Your task to perform on an android device: open app "Instagram" Image 0: 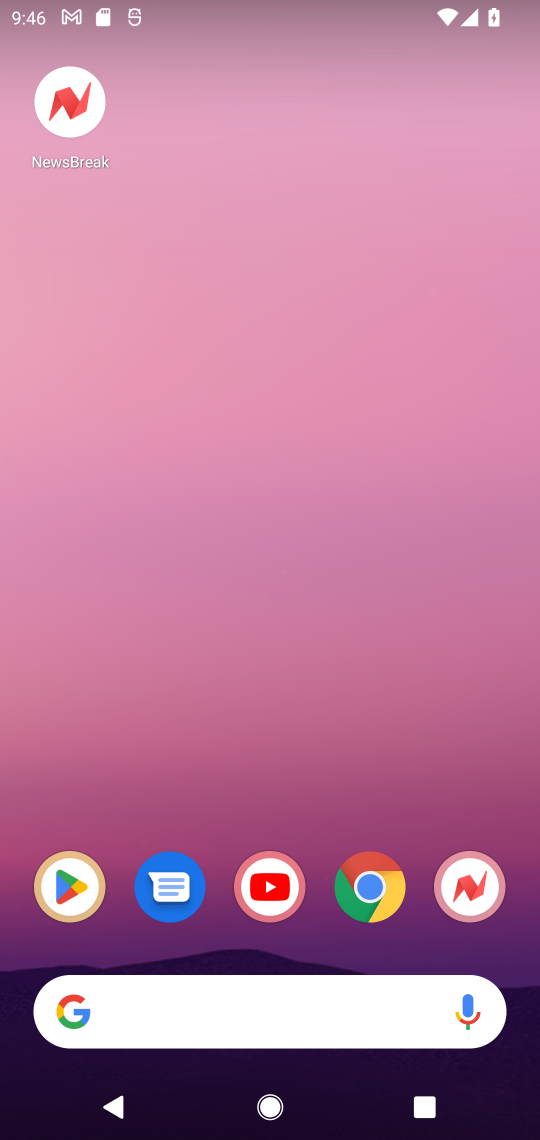
Step 0: click (58, 877)
Your task to perform on an android device: open app "Instagram" Image 1: 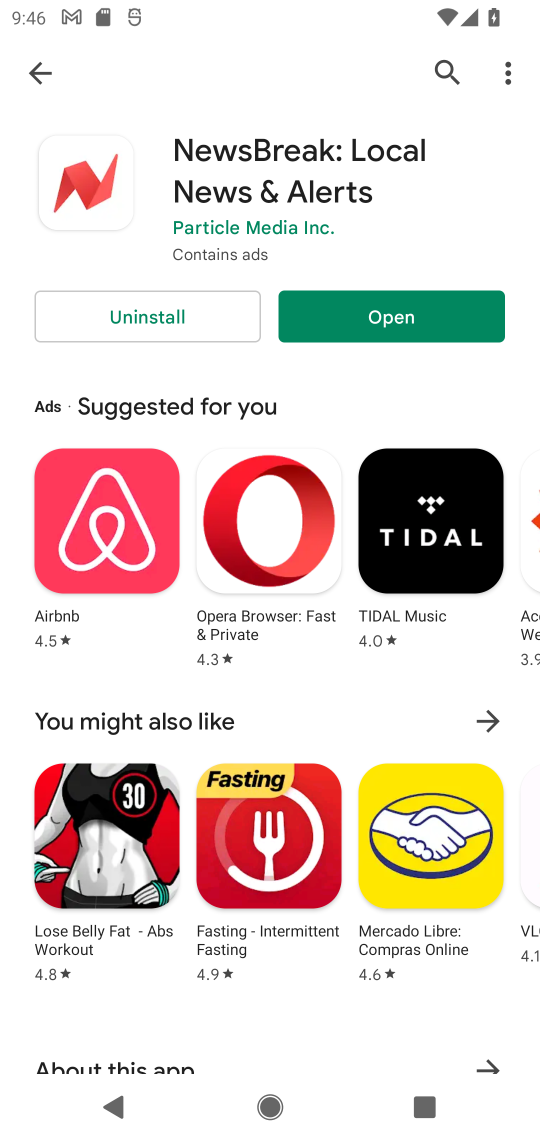
Step 1: click (449, 66)
Your task to perform on an android device: open app "Instagram" Image 2: 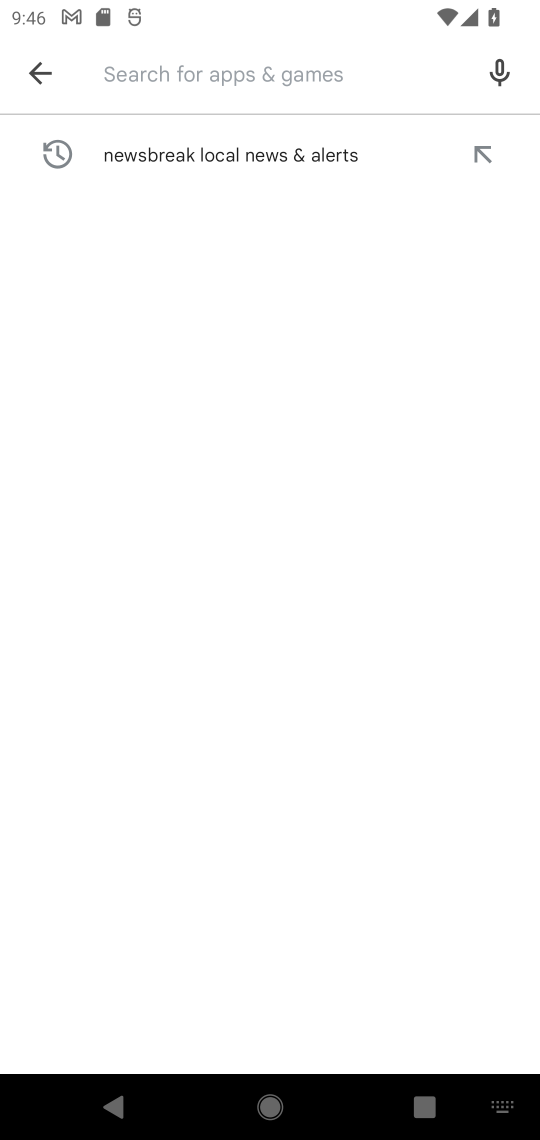
Step 2: type "instagram"
Your task to perform on an android device: open app "Instagram" Image 3: 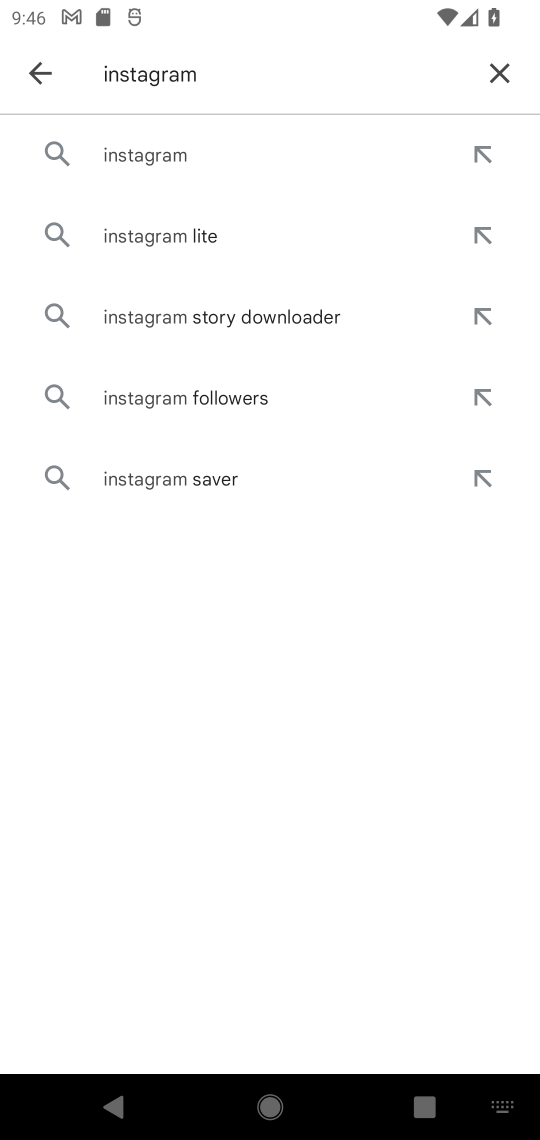
Step 3: click (213, 150)
Your task to perform on an android device: open app "Instagram" Image 4: 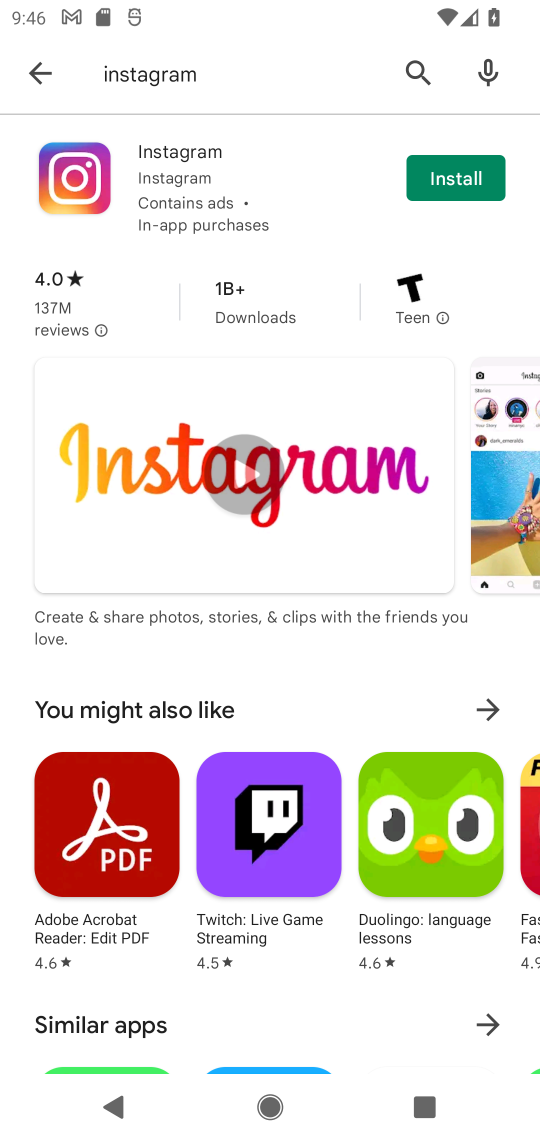
Step 4: click (254, 144)
Your task to perform on an android device: open app "Instagram" Image 5: 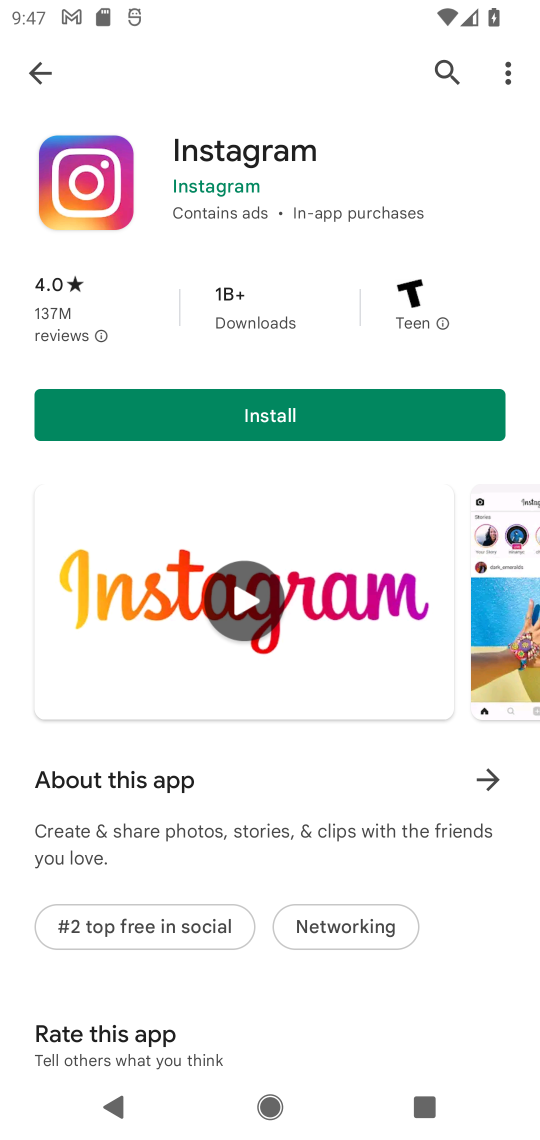
Step 5: task complete